Your task to perform on an android device: turn on javascript in the chrome app Image 0: 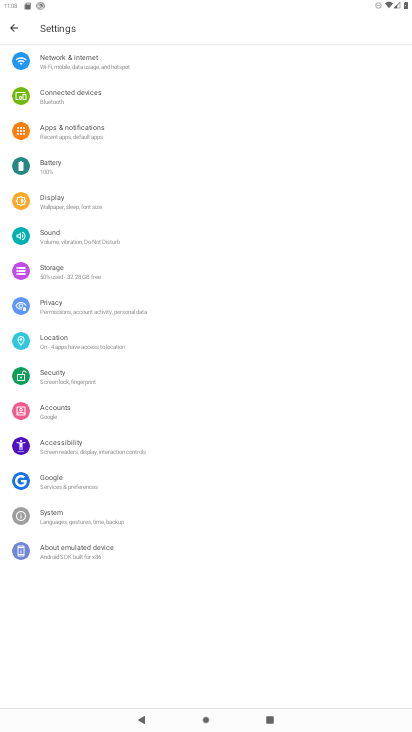
Step 0: press home button
Your task to perform on an android device: turn on javascript in the chrome app Image 1: 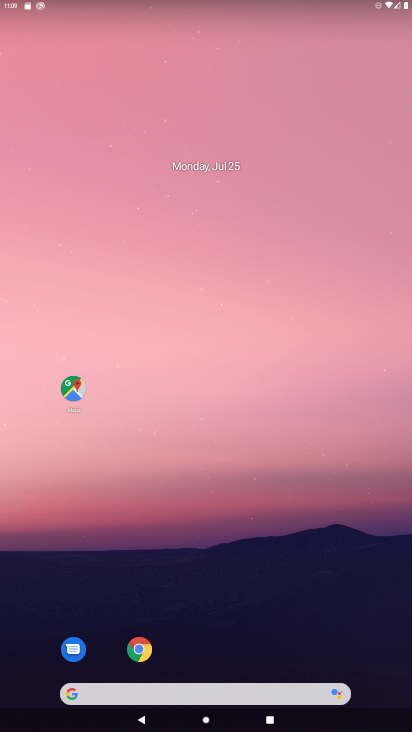
Step 1: click (140, 652)
Your task to perform on an android device: turn on javascript in the chrome app Image 2: 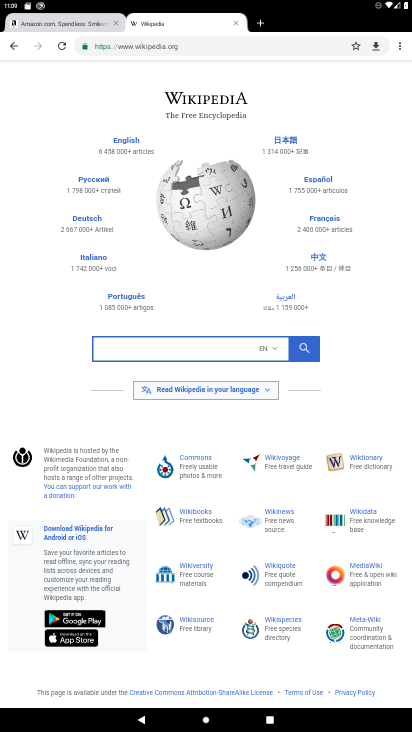
Step 2: click (398, 49)
Your task to perform on an android device: turn on javascript in the chrome app Image 3: 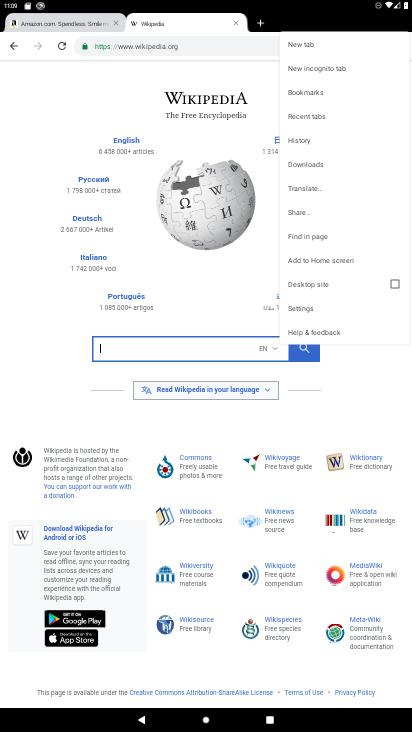
Step 3: click (305, 308)
Your task to perform on an android device: turn on javascript in the chrome app Image 4: 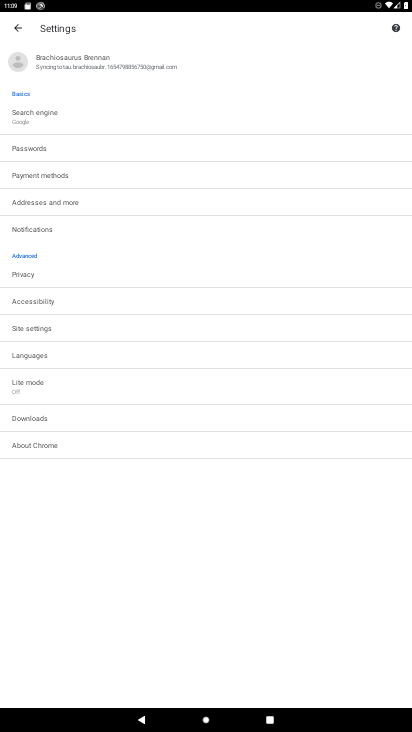
Step 4: click (27, 325)
Your task to perform on an android device: turn on javascript in the chrome app Image 5: 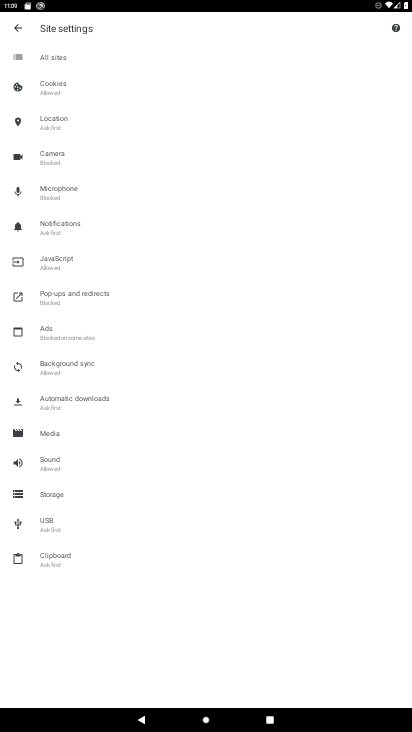
Step 5: click (56, 260)
Your task to perform on an android device: turn on javascript in the chrome app Image 6: 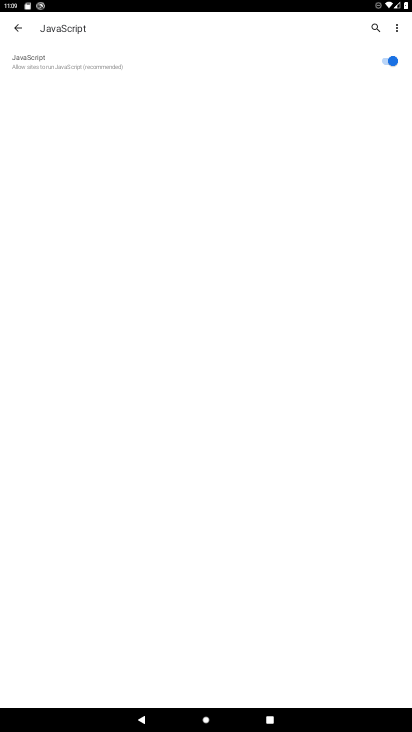
Step 6: task complete